Your task to perform on an android device: Open Android settings Image 0: 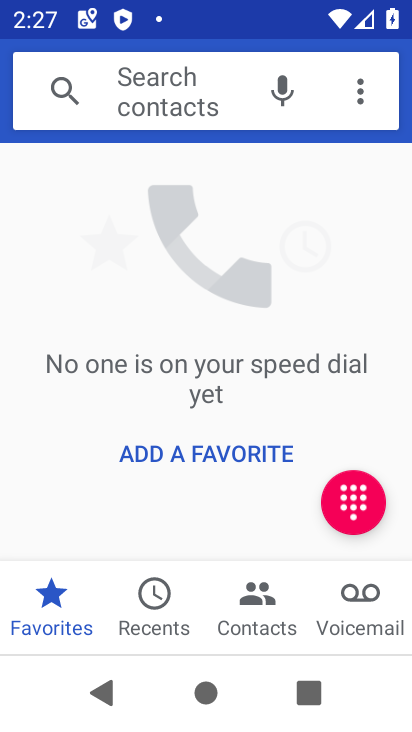
Step 0: press home button
Your task to perform on an android device: Open Android settings Image 1: 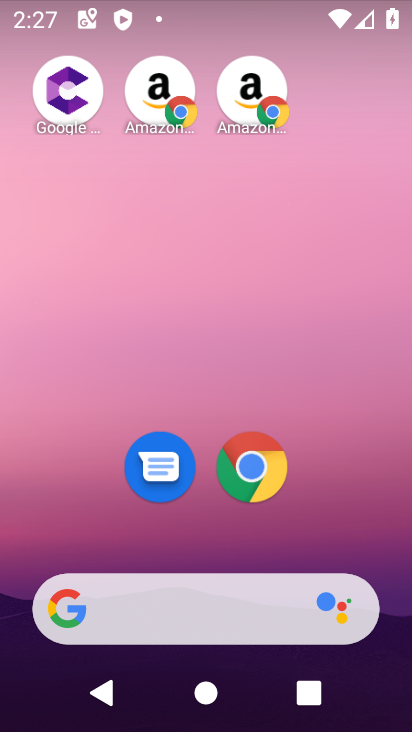
Step 1: drag from (5, 442) to (410, 331)
Your task to perform on an android device: Open Android settings Image 2: 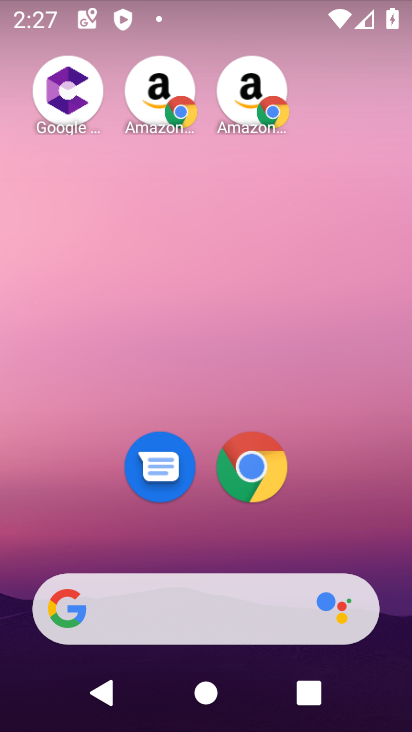
Step 2: drag from (33, 319) to (381, 281)
Your task to perform on an android device: Open Android settings Image 3: 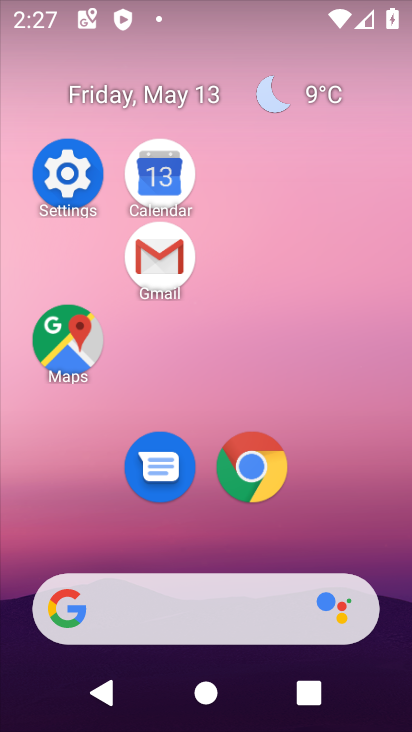
Step 3: click (84, 159)
Your task to perform on an android device: Open Android settings Image 4: 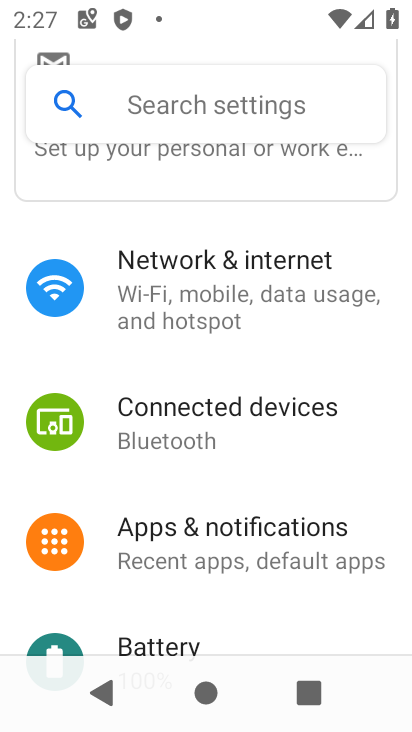
Step 4: task complete